Your task to perform on an android device: Open Google Maps and go to "Timeline" Image 0: 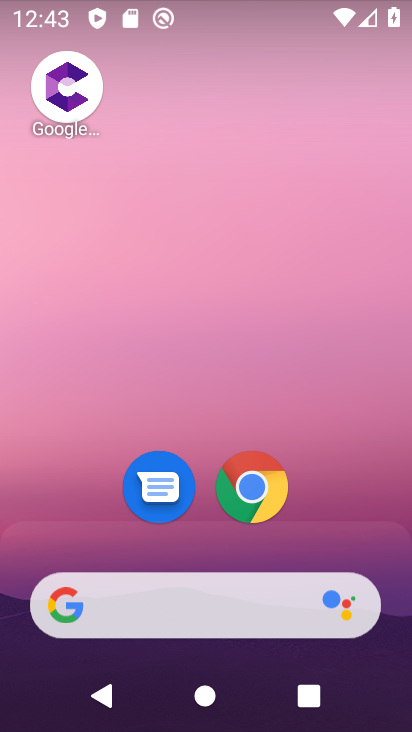
Step 0: drag from (205, 556) to (212, 176)
Your task to perform on an android device: Open Google Maps and go to "Timeline" Image 1: 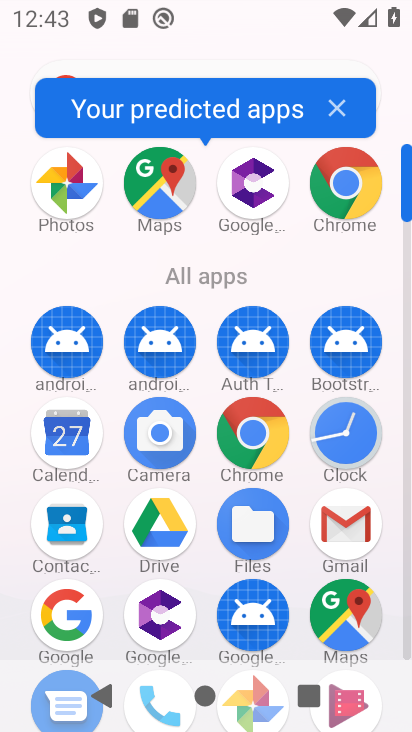
Step 1: click (142, 203)
Your task to perform on an android device: Open Google Maps and go to "Timeline" Image 2: 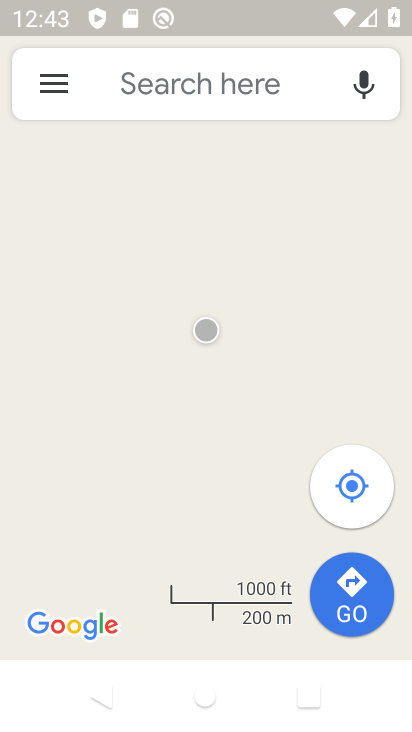
Step 2: click (54, 84)
Your task to perform on an android device: Open Google Maps and go to "Timeline" Image 3: 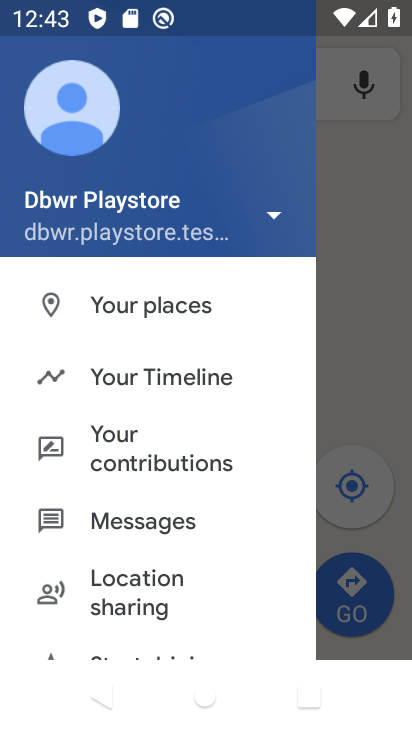
Step 3: click (177, 383)
Your task to perform on an android device: Open Google Maps and go to "Timeline" Image 4: 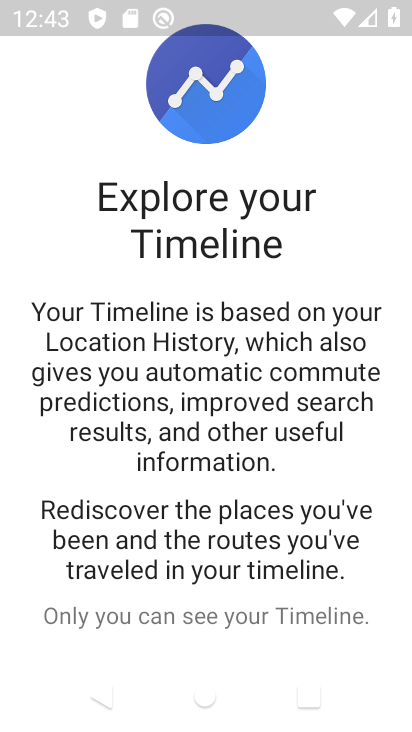
Step 4: drag from (214, 603) to (232, 302)
Your task to perform on an android device: Open Google Maps and go to "Timeline" Image 5: 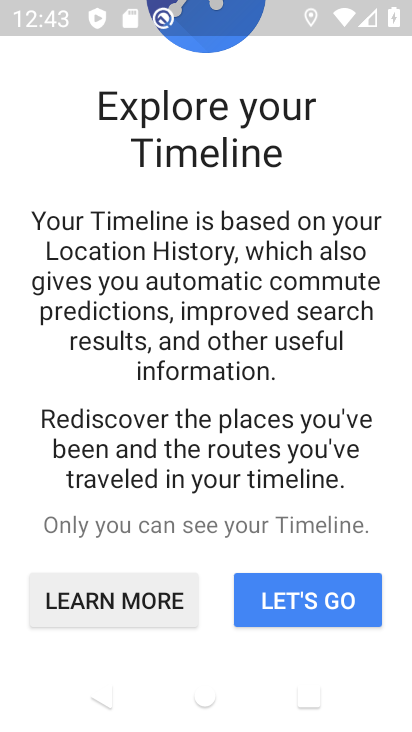
Step 5: click (287, 613)
Your task to perform on an android device: Open Google Maps and go to "Timeline" Image 6: 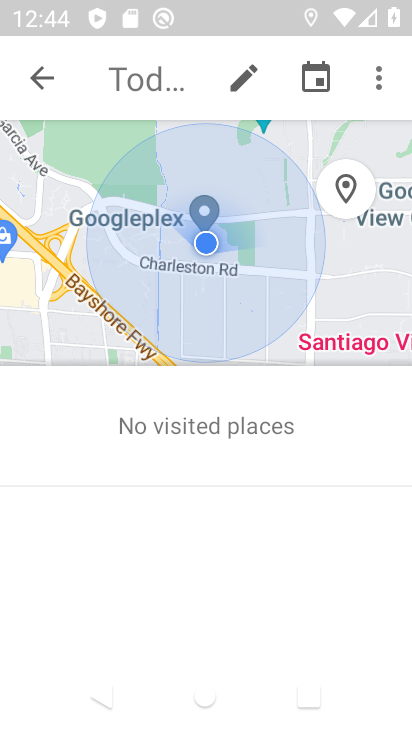
Step 6: task complete